Your task to perform on an android device: Open Reddit.com Image 0: 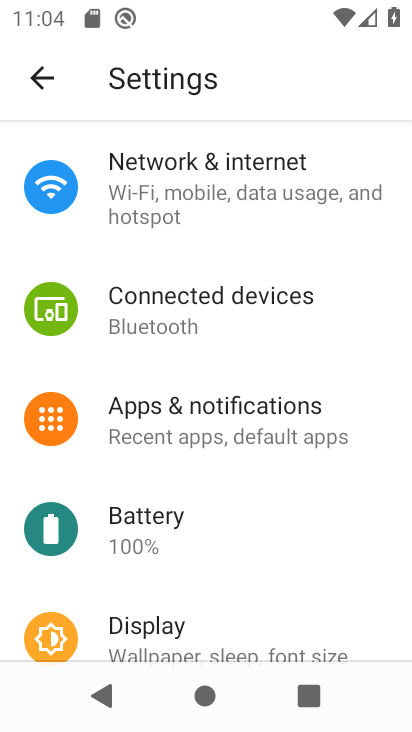
Step 0: press back button
Your task to perform on an android device: Open Reddit.com Image 1: 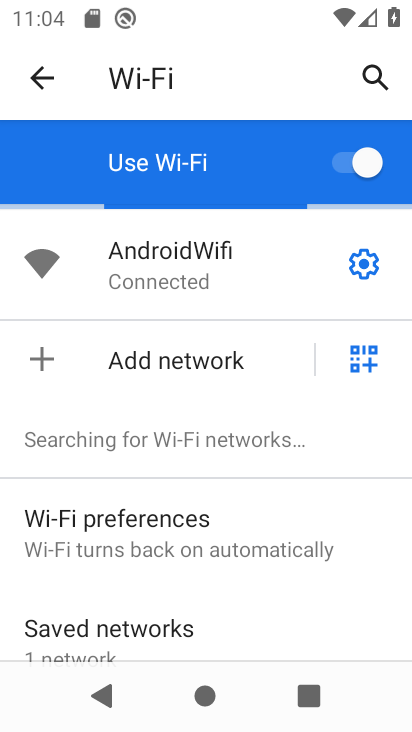
Step 1: press back button
Your task to perform on an android device: Open Reddit.com Image 2: 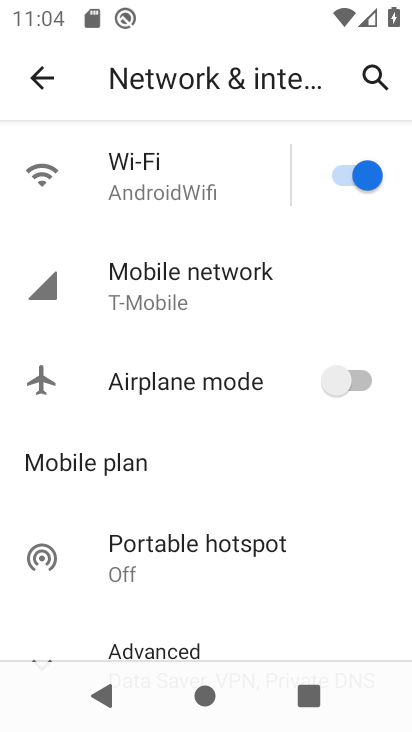
Step 2: press back button
Your task to perform on an android device: Open Reddit.com Image 3: 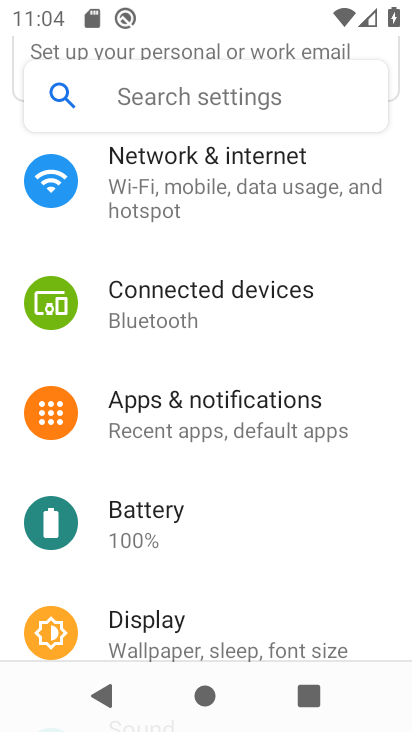
Step 3: press back button
Your task to perform on an android device: Open Reddit.com Image 4: 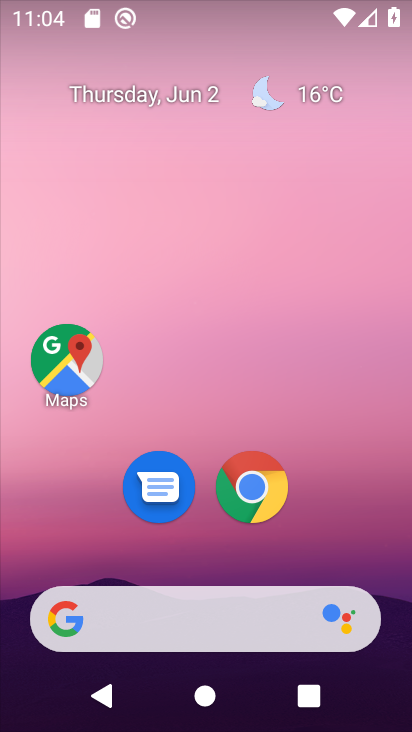
Step 4: click (257, 489)
Your task to perform on an android device: Open Reddit.com Image 5: 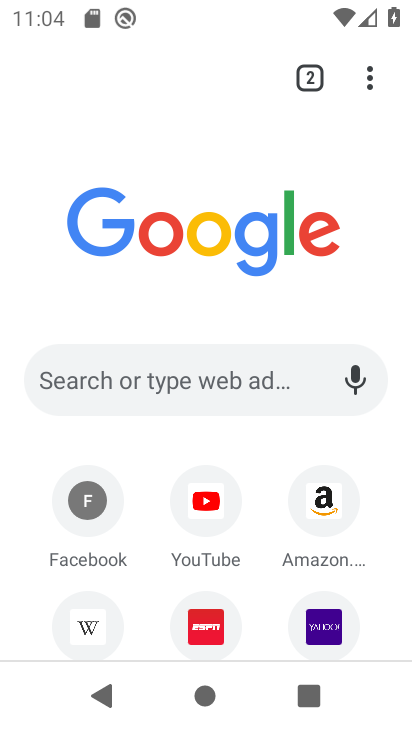
Step 5: click (211, 376)
Your task to perform on an android device: Open Reddit.com Image 6: 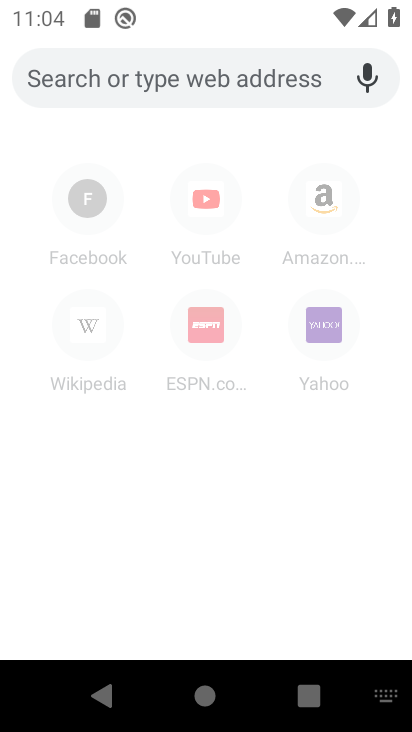
Step 6: type "Reddit.com"
Your task to perform on an android device: Open Reddit.com Image 7: 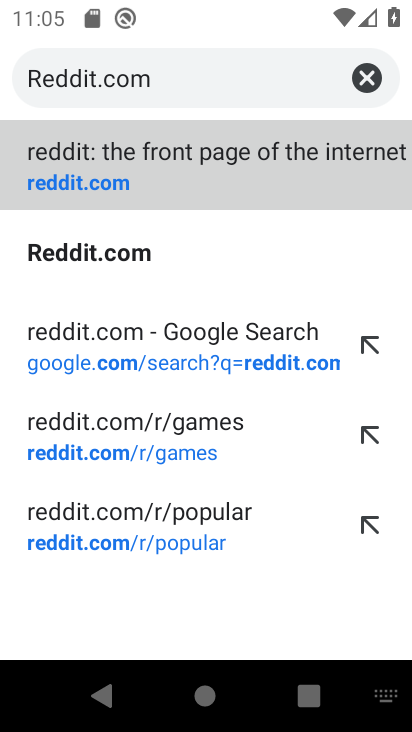
Step 7: click (140, 255)
Your task to perform on an android device: Open Reddit.com Image 8: 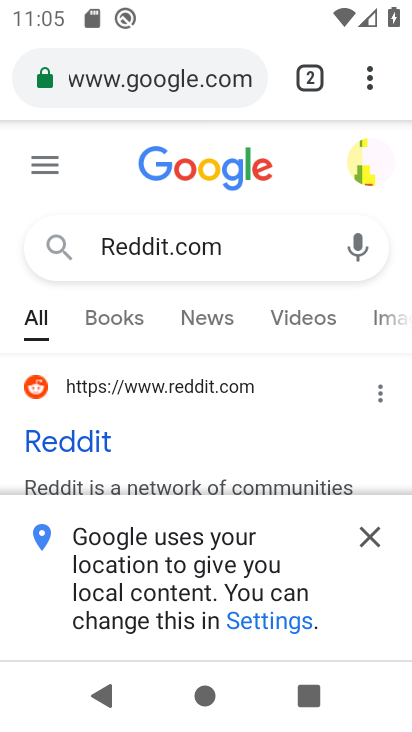
Step 8: click (85, 380)
Your task to perform on an android device: Open Reddit.com Image 9: 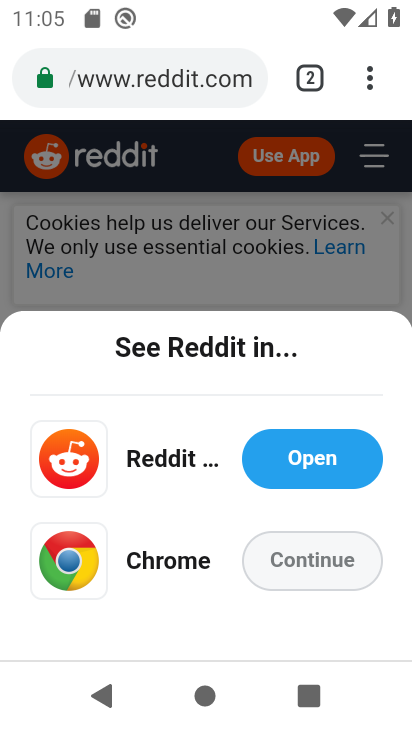
Step 9: click (291, 555)
Your task to perform on an android device: Open Reddit.com Image 10: 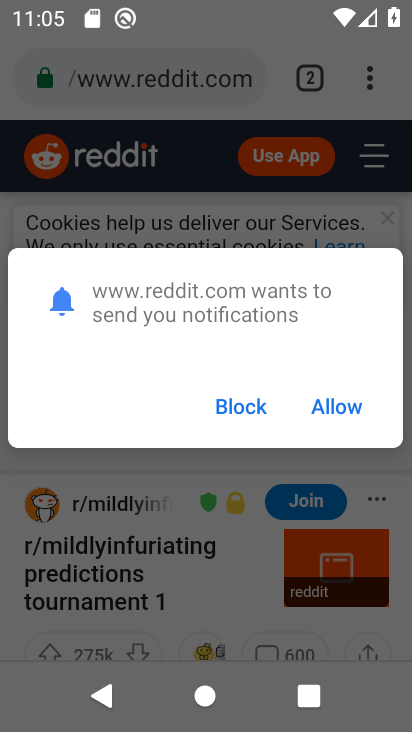
Step 10: click (333, 414)
Your task to perform on an android device: Open Reddit.com Image 11: 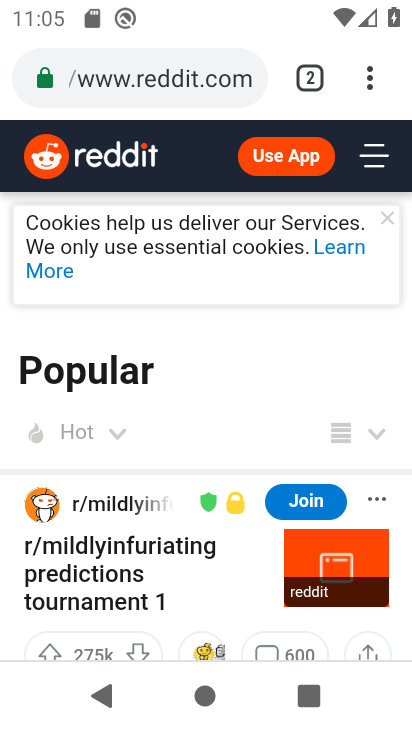
Step 11: task complete